Your task to perform on an android device: Show me popular videos on Youtube Image 0: 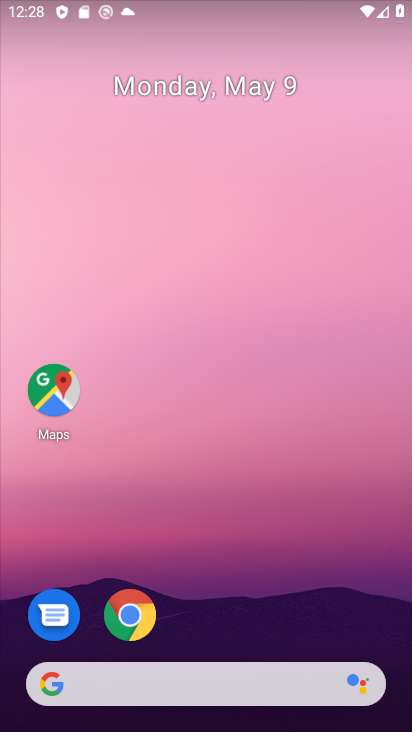
Step 0: drag from (226, 612) to (266, 45)
Your task to perform on an android device: Show me popular videos on Youtube Image 1: 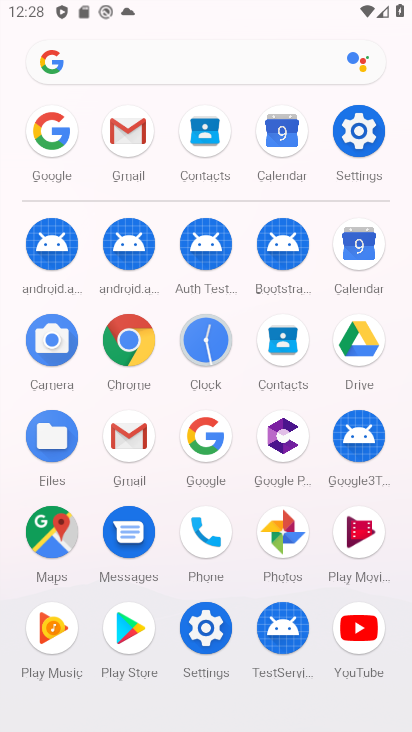
Step 1: click (360, 626)
Your task to perform on an android device: Show me popular videos on Youtube Image 2: 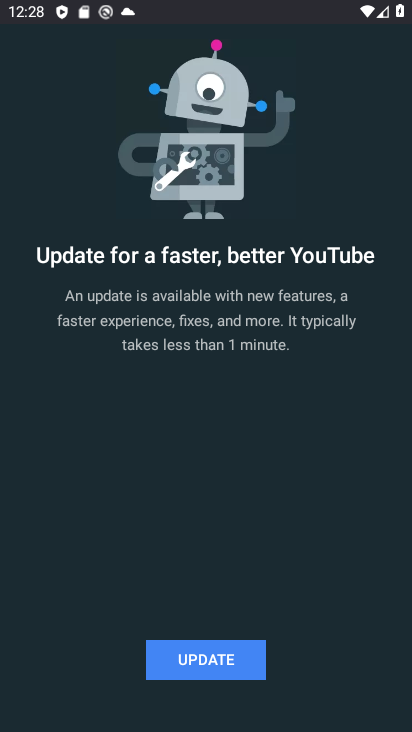
Step 2: click (207, 662)
Your task to perform on an android device: Show me popular videos on Youtube Image 3: 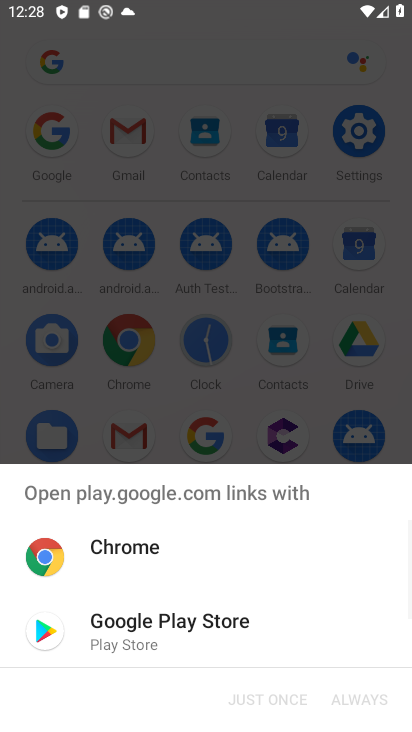
Step 3: click (169, 628)
Your task to perform on an android device: Show me popular videos on Youtube Image 4: 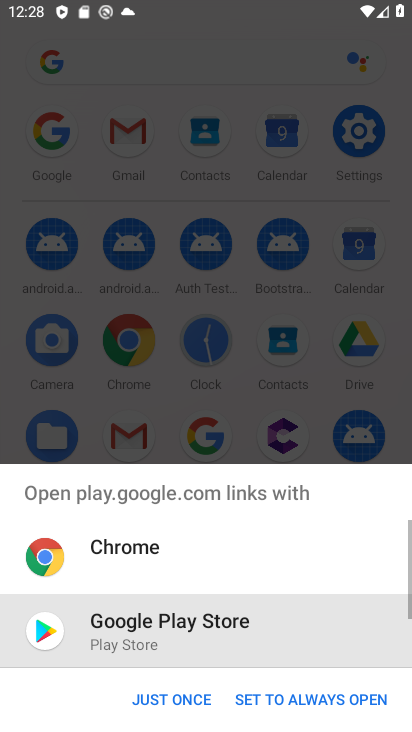
Step 4: click (161, 698)
Your task to perform on an android device: Show me popular videos on Youtube Image 5: 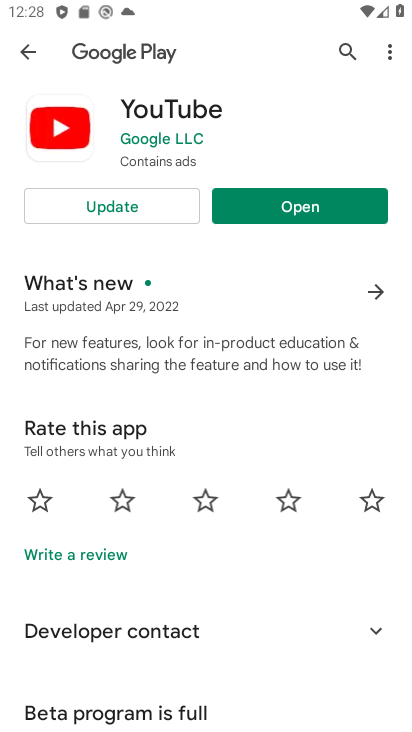
Step 5: click (161, 204)
Your task to perform on an android device: Show me popular videos on Youtube Image 6: 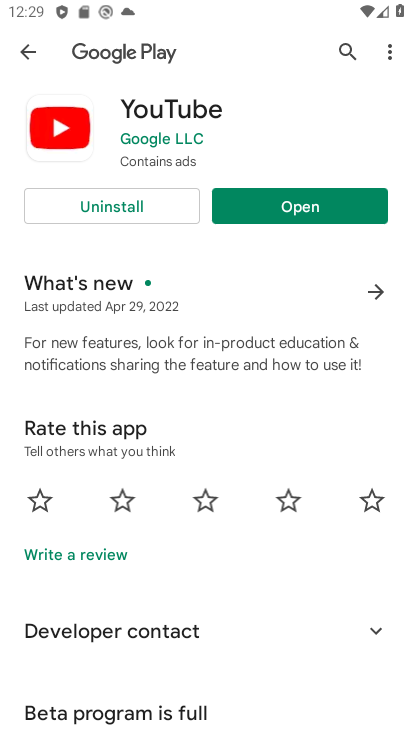
Step 6: click (292, 206)
Your task to perform on an android device: Show me popular videos on Youtube Image 7: 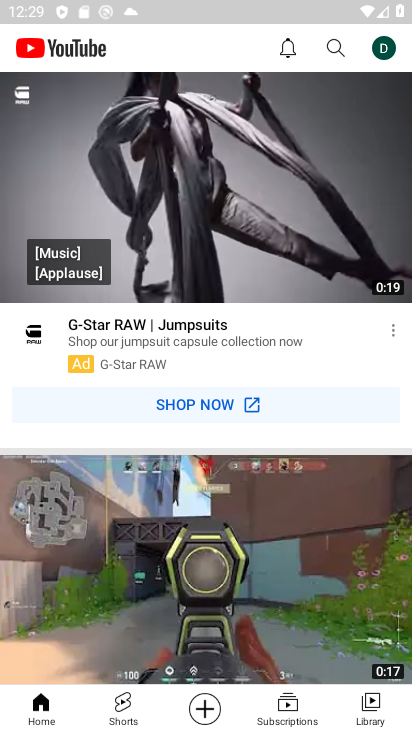
Step 7: click (336, 53)
Your task to perform on an android device: Show me popular videos on Youtube Image 8: 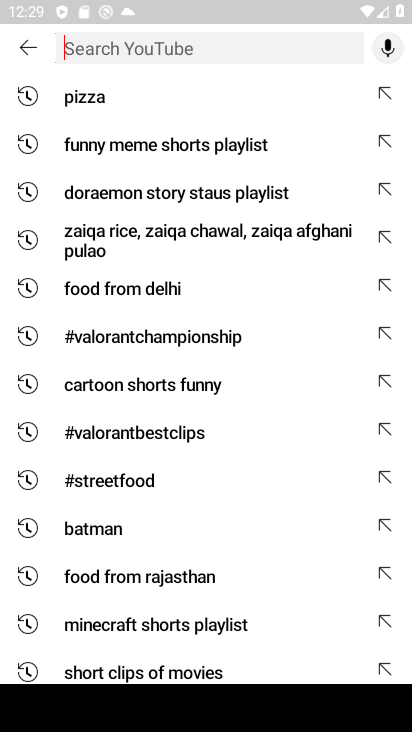
Step 8: type "popular videos"
Your task to perform on an android device: Show me popular videos on Youtube Image 9: 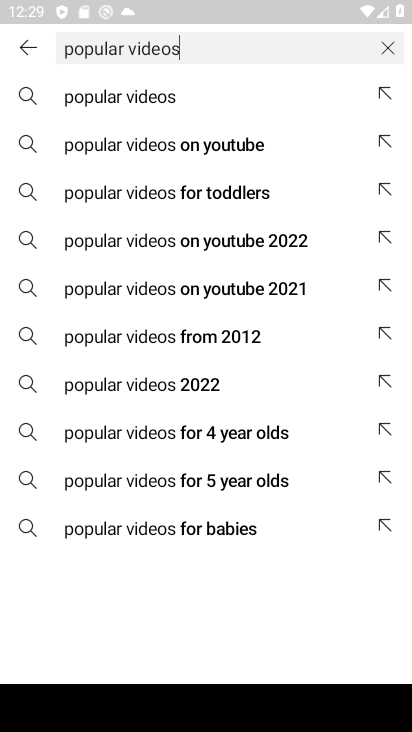
Step 9: click (169, 144)
Your task to perform on an android device: Show me popular videos on Youtube Image 10: 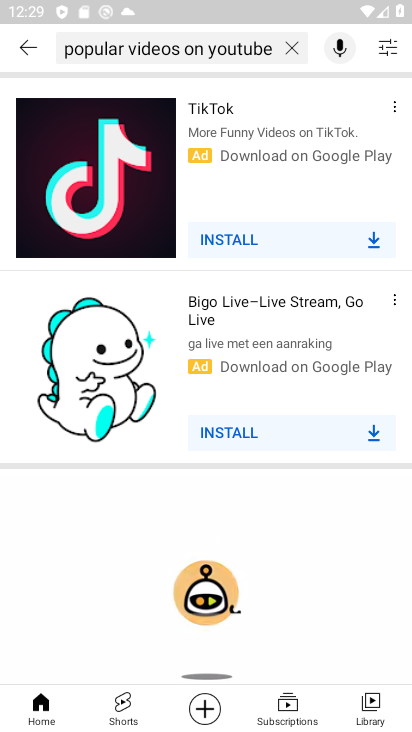
Step 10: task complete